Your task to perform on an android device: Go to Reddit.com Image 0: 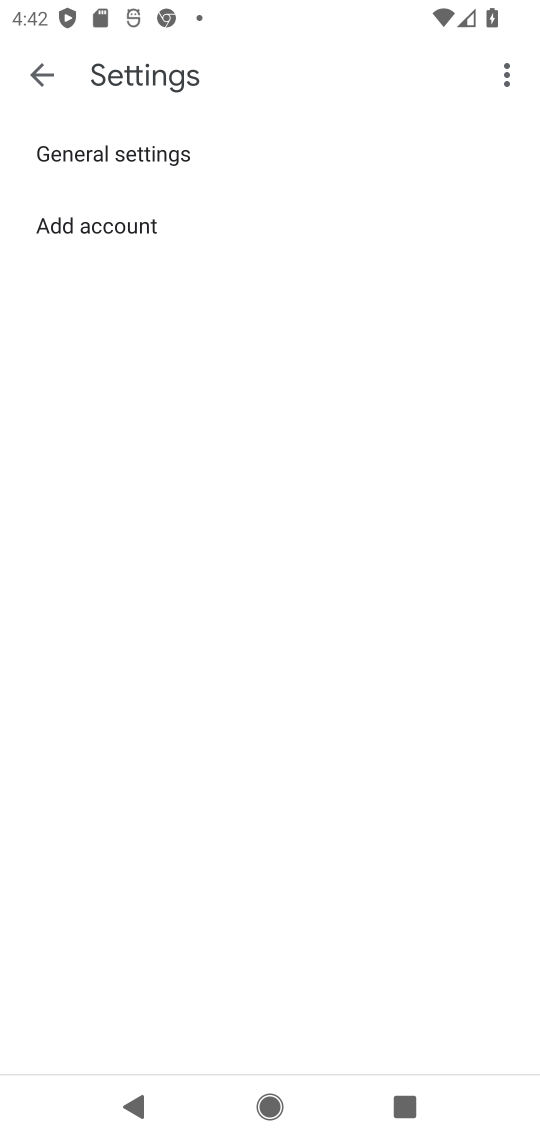
Step 0: press home button
Your task to perform on an android device: Go to Reddit.com Image 1: 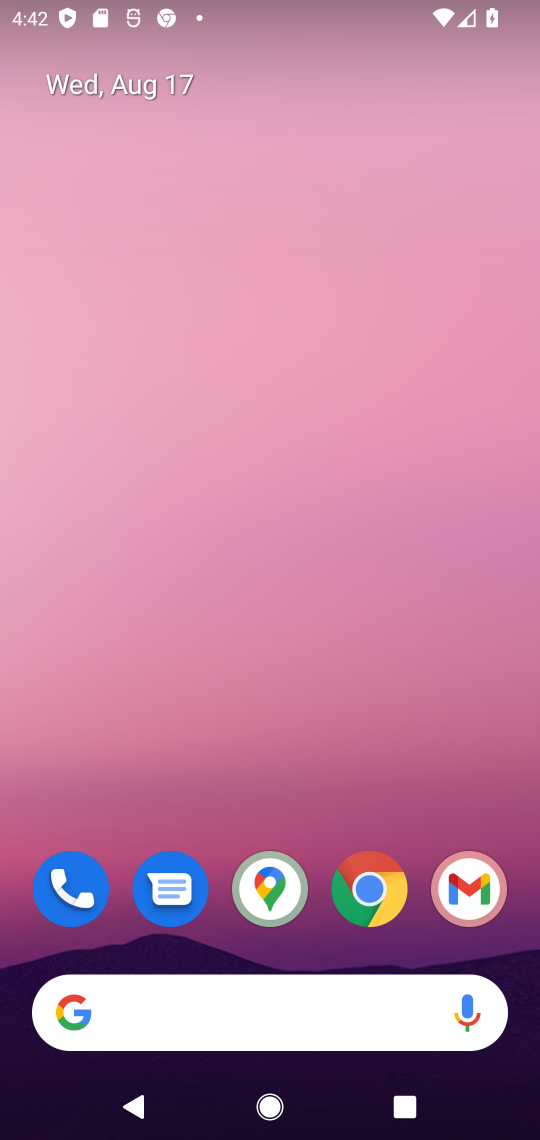
Step 1: click (372, 889)
Your task to perform on an android device: Go to Reddit.com Image 2: 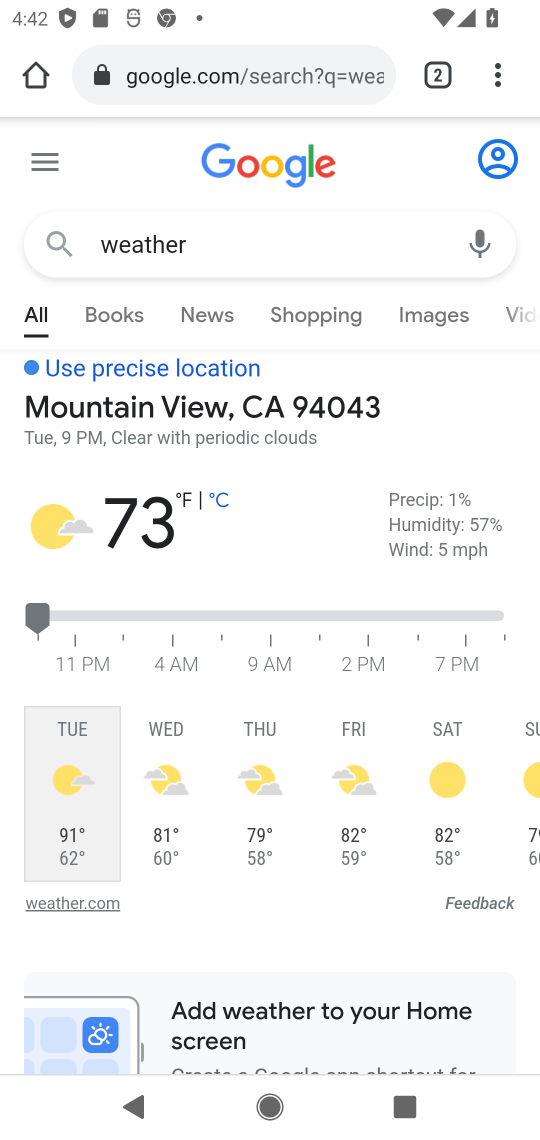
Step 2: click (502, 79)
Your task to perform on an android device: Go to Reddit.com Image 3: 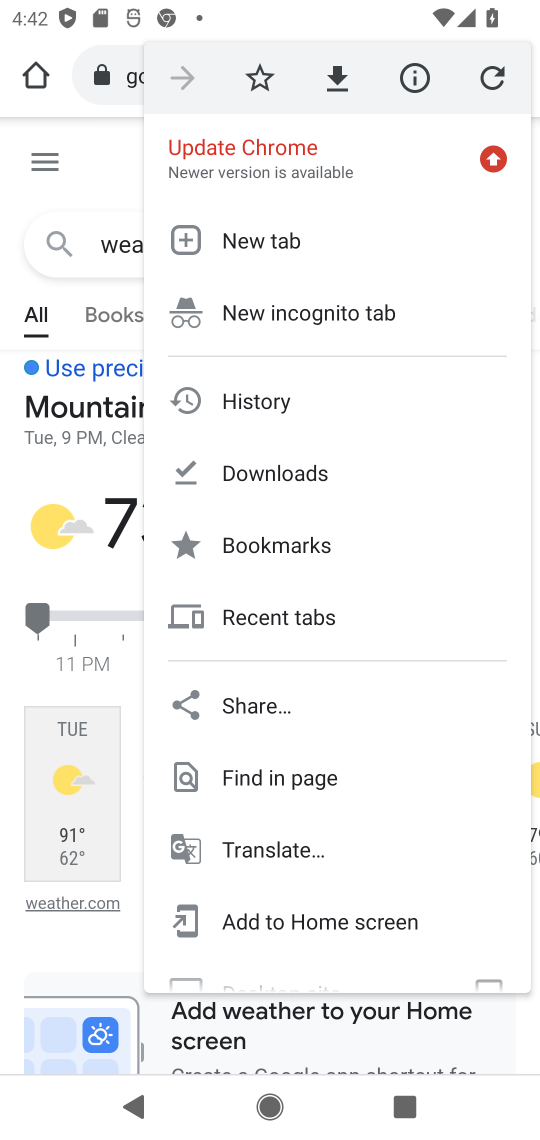
Step 3: click (276, 235)
Your task to perform on an android device: Go to Reddit.com Image 4: 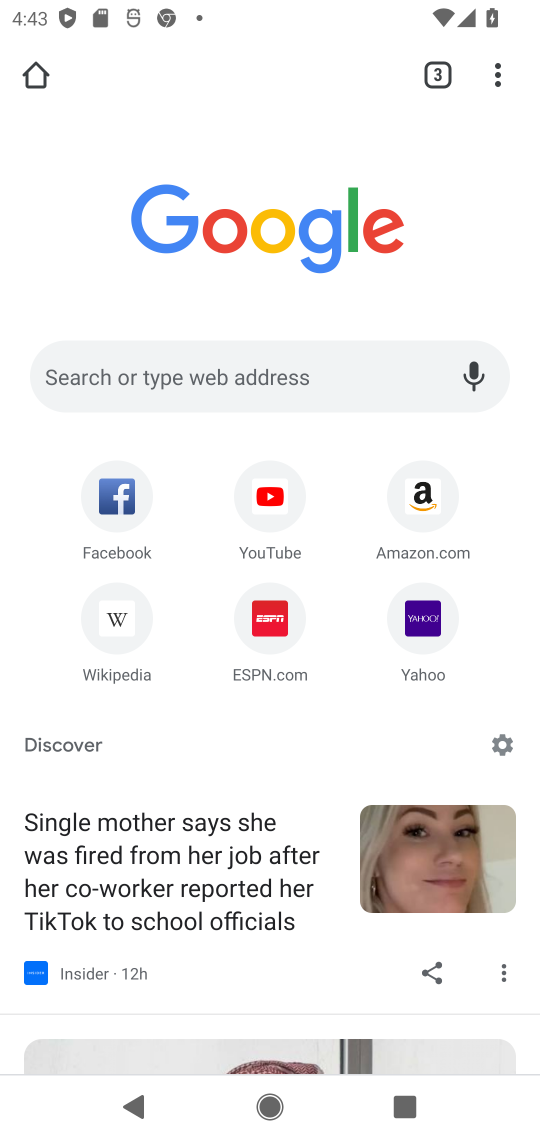
Step 4: click (203, 382)
Your task to perform on an android device: Go to Reddit.com Image 5: 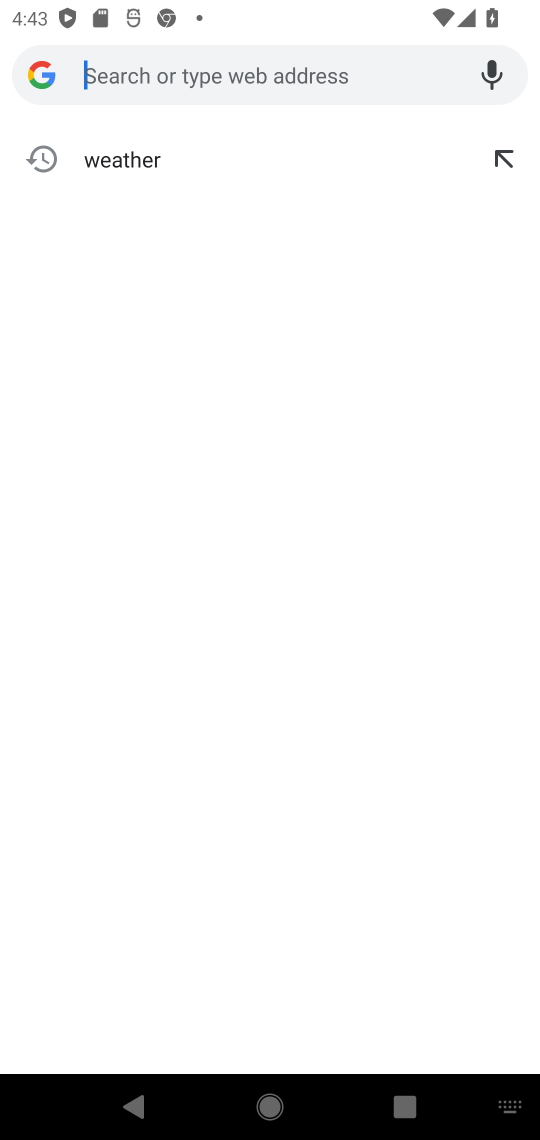
Step 5: type "reddit.com"
Your task to perform on an android device: Go to Reddit.com Image 6: 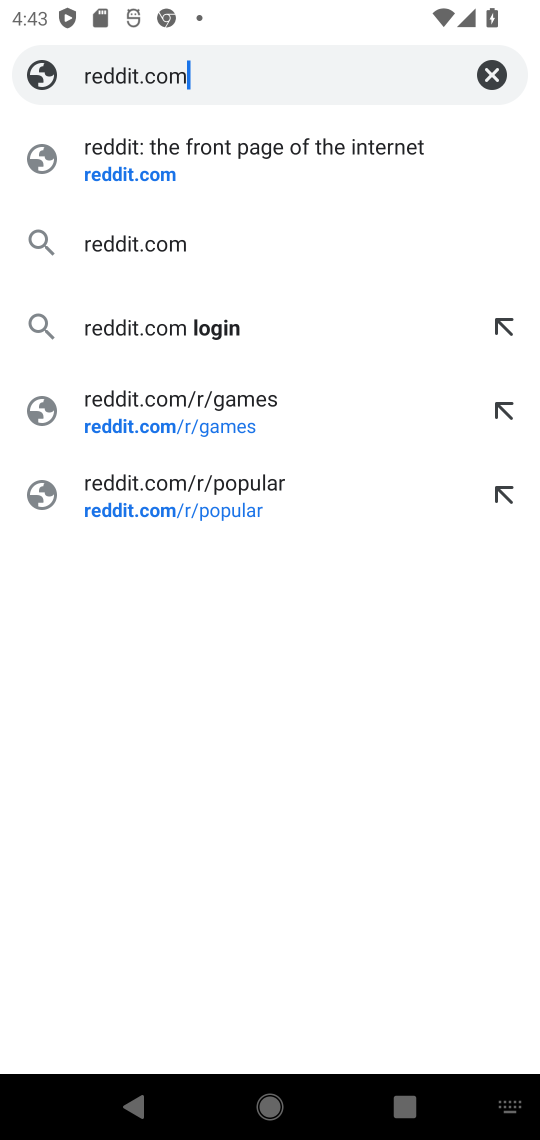
Step 6: click (125, 155)
Your task to perform on an android device: Go to Reddit.com Image 7: 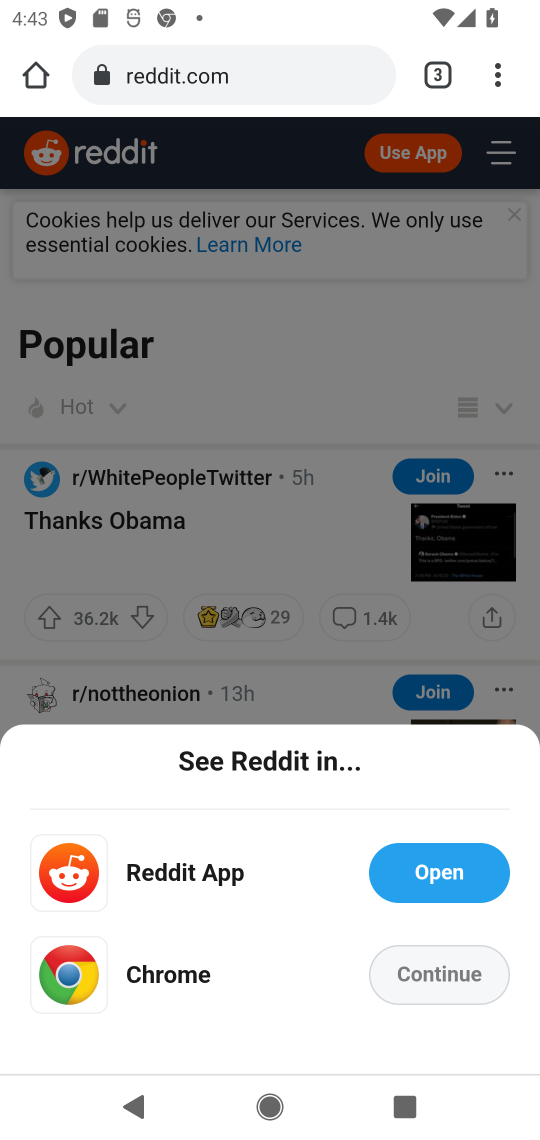
Step 7: click (441, 967)
Your task to perform on an android device: Go to Reddit.com Image 8: 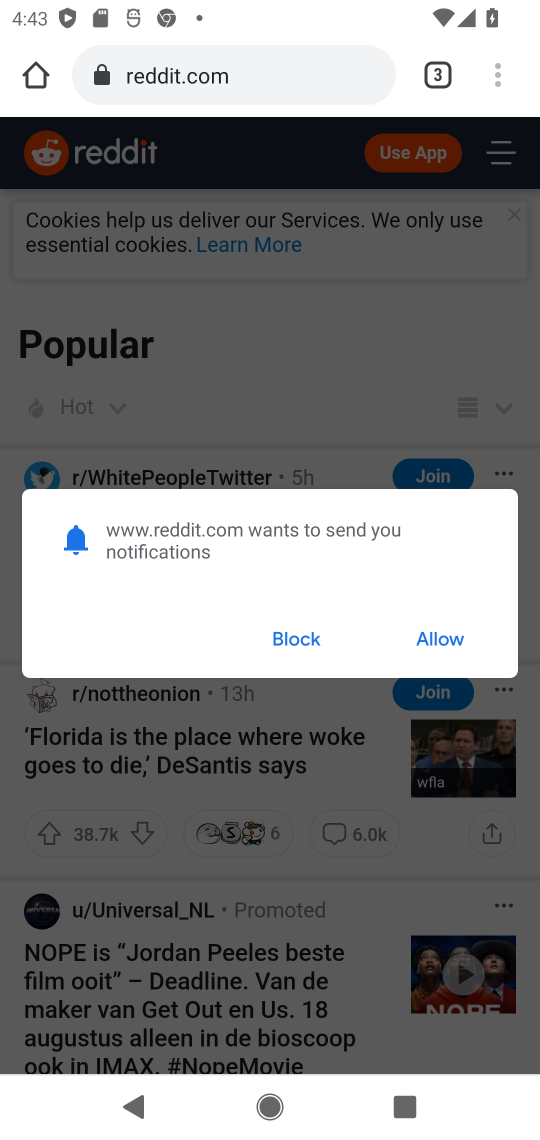
Step 8: click (441, 638)
Your task to perform on an android device: Go to Reddit.com Image 9: 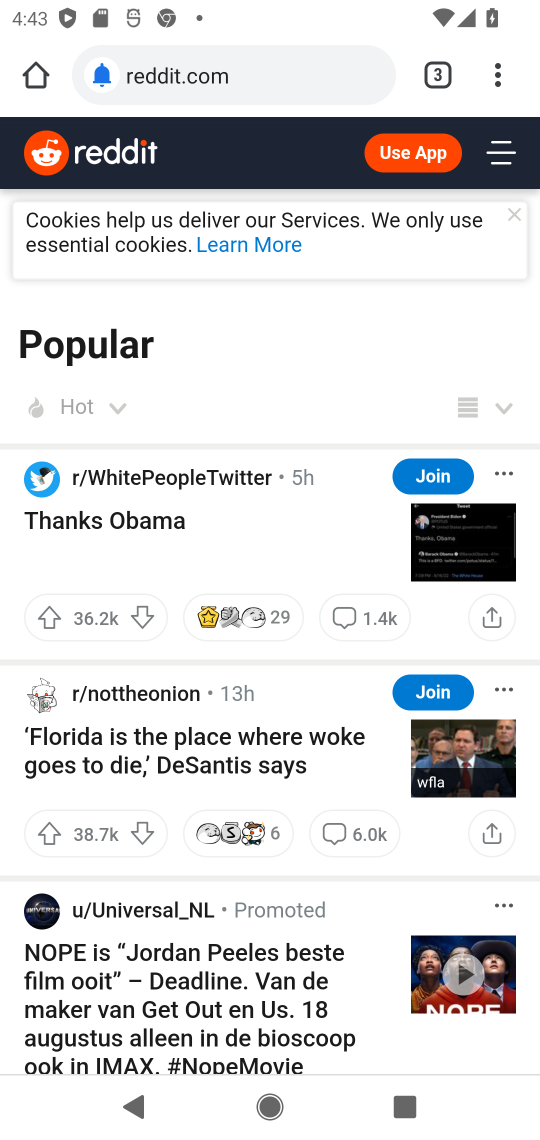
Step 9: task complete